Your task to perform on an android device: Open settings Image 0: 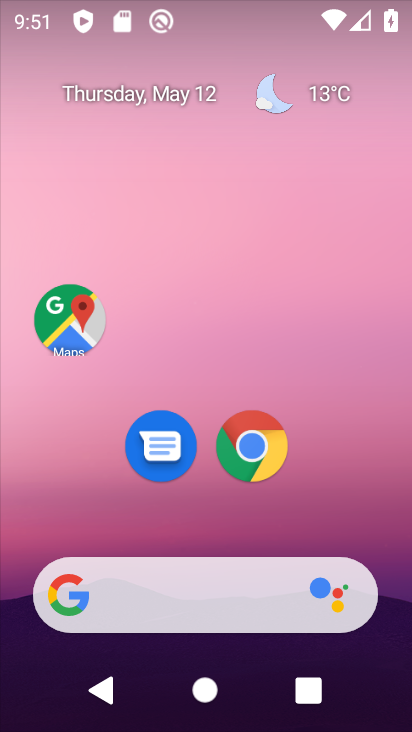
Step 0: drag from (201, 443) to (251, 74)
Your task to perform on an android device: Open settings Image 1: 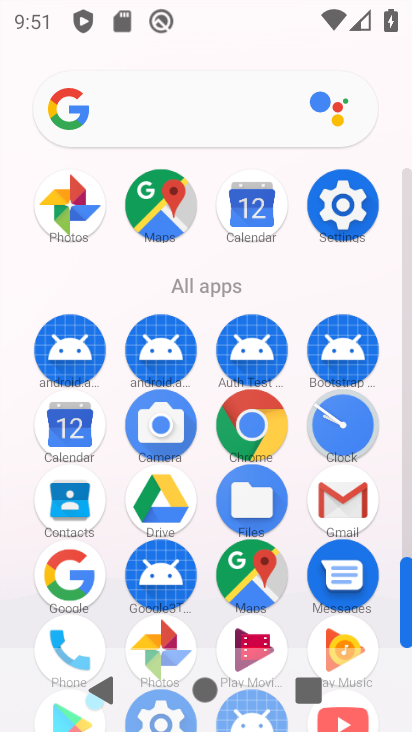
Step 1: click (341, 211)
Your task to perform on an android device: Open settings Image 2: 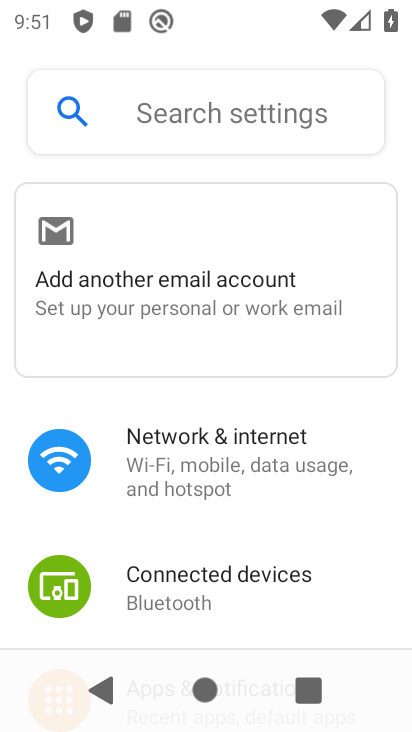
Step 2: task complete